Your task to perform on an android device: Show me recent news Image 0: 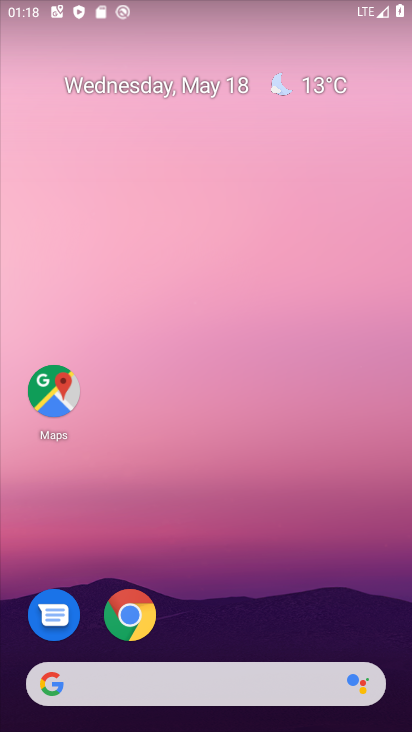
Step 0: press home button
Your task to perform on an android device: Show me recent news Image 1: 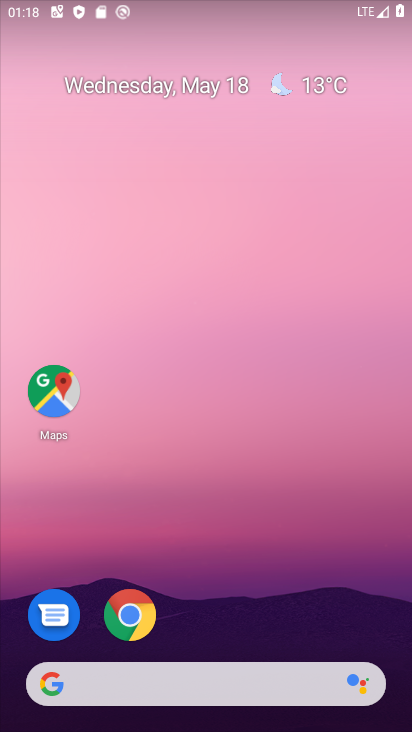
Step 1: click (55, 683)
Your task to perform on an android device: Show me recent news Image 2: 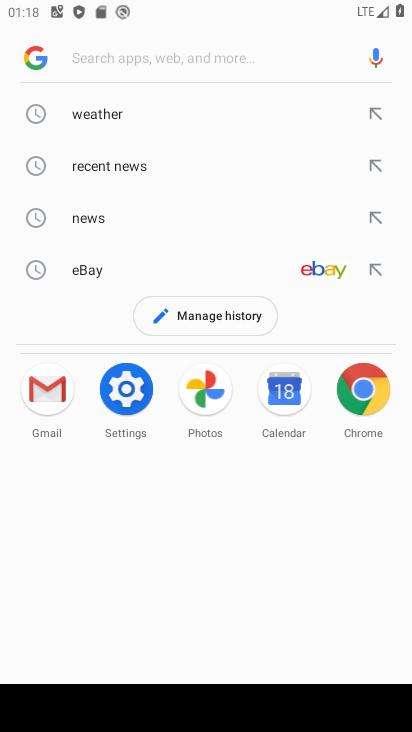
Step 2: click (98, 216)
Your task to perform on an android device: Show me recent news Image 3: 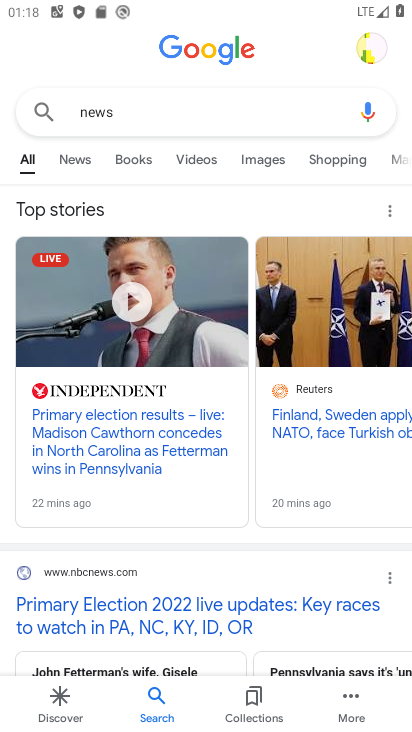
Step 3: click (79, 158)
Your task to perform on an android device: Show me recent news Image 4: 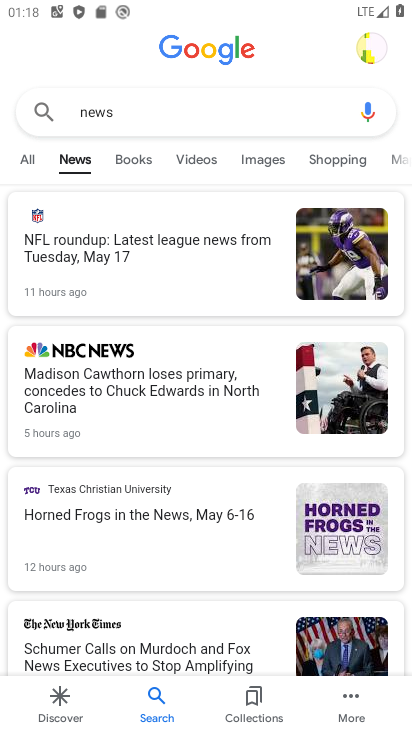
Step 4: task complete